Your task to perform on an android device: snooze an email in the gmail app Image 0: 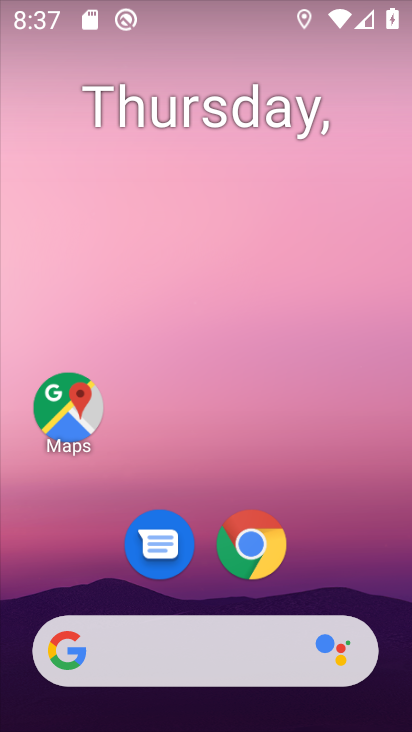
Step 0: drag from (367, 553) to (269, 0)
Your task to perform on an android device: snooze an email in the gmail app Image 1: 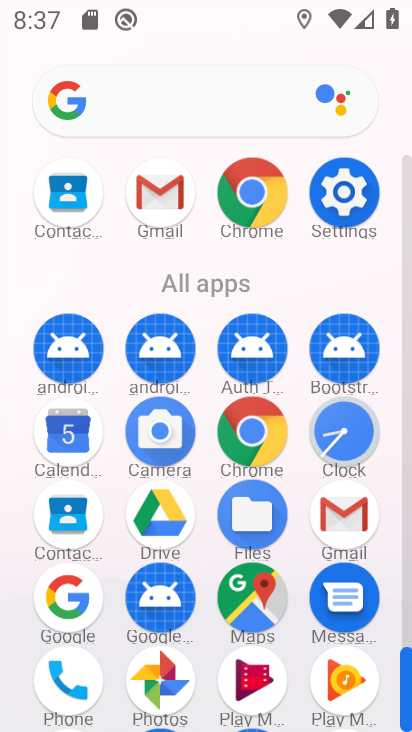
Step 1: drag from (12, 609) to (6, 311)
Your task to perform on an android device: snooze an email in the gmail app Image 2: 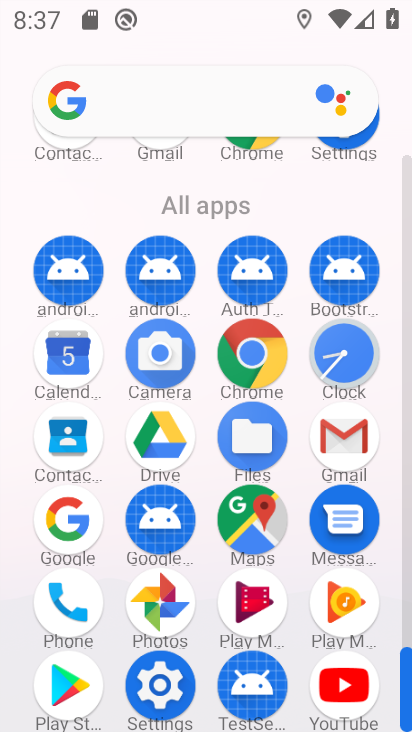
Step 2: click (345, 427)
Your task to perform on an android device: snooze an email in the gmail app Image 3: 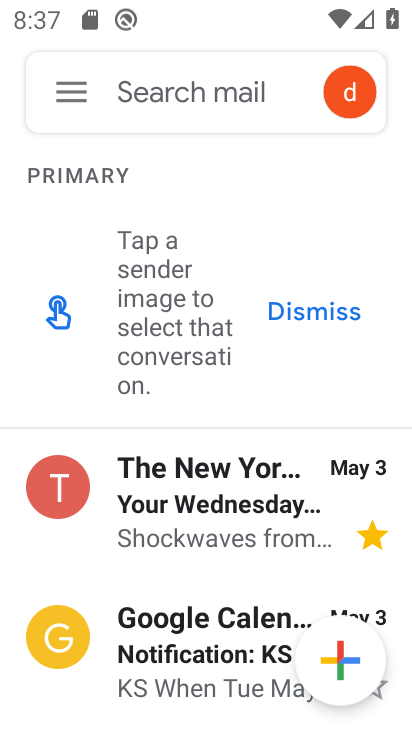
Step 3: click (215, 488)
Your task to perform on an android device: snooze an email in the gmail app Image 4: 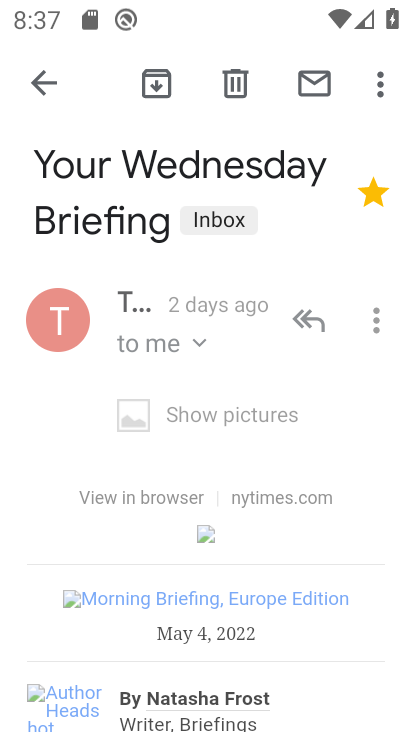
Step 4: click (376, 95)
Your task to perform on an android device: snooze an email in the gmail app Image 5: 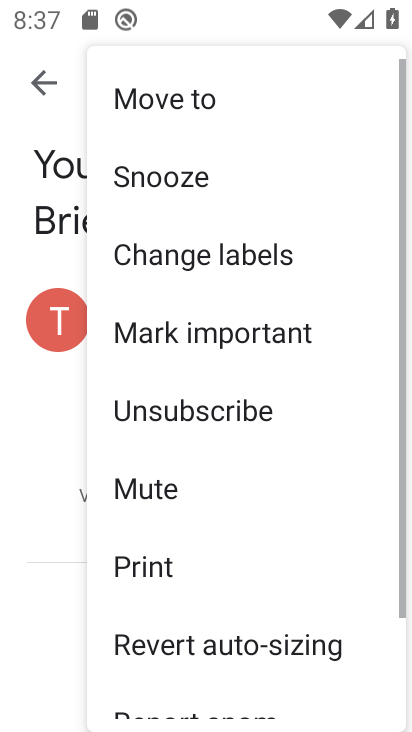
Step 5: click (237, 167)
Your task to perform on an android device: snooze an email in the gmail app Image 6: 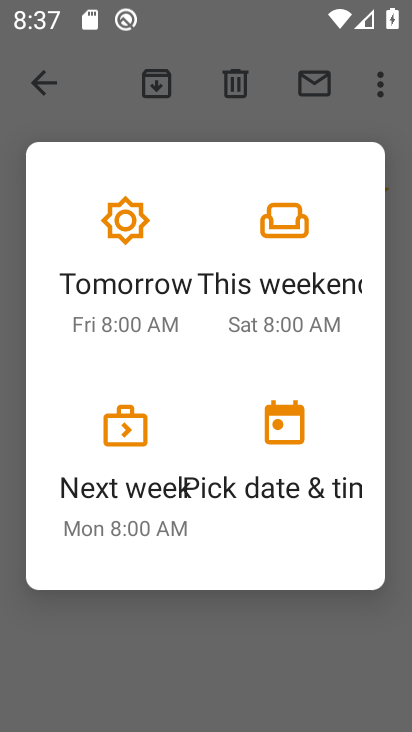
Step 6: click (163, 279)
Your task to perform on an android device: snooze an email in the gmail app Image 7: 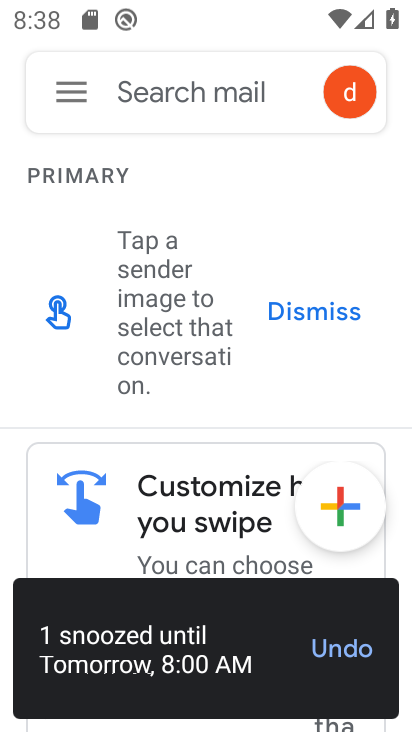
Step 7: task complete